Your task to perform on an android device: add a contact in the contacts app Image 0: 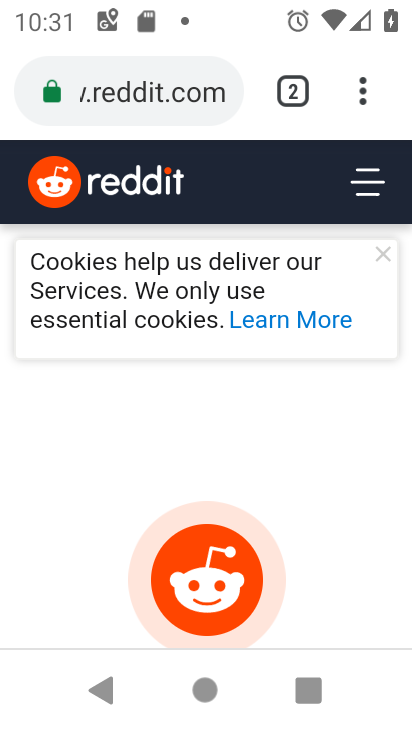
Step 0: press home button
Your task to perform on an android device: add a contact in the contacts app Image 1: 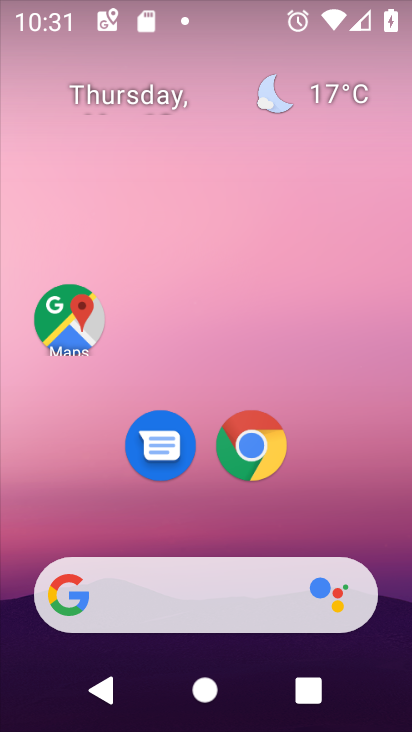
Step 1: drag from (200, 547) to (242, 192)
Your task to perform on an android device: add a contact in the contacts app Image 2: 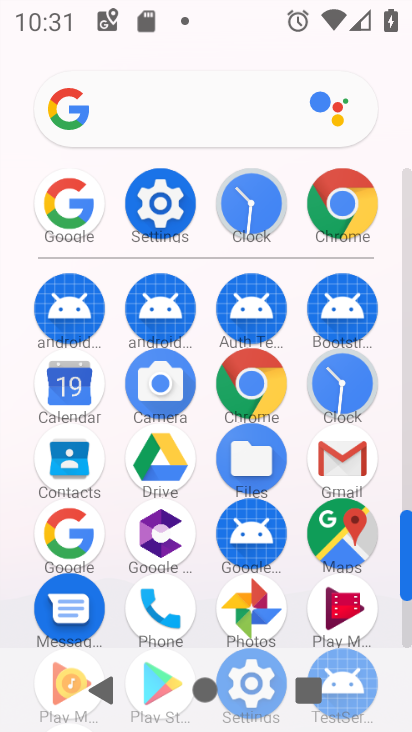
Step 2: click (61, 459)
Your task to perform on an android device: add a contact in the contacts app Image 3: 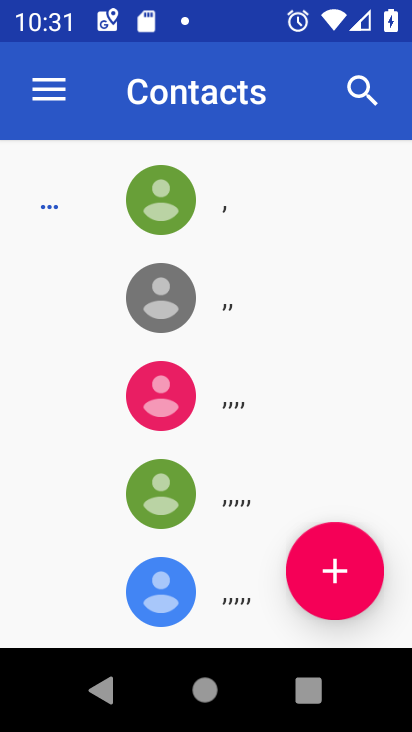
Step 3: click (347, 595)
Your task to perform on an android device: add a contact in the contacts app Image 4: 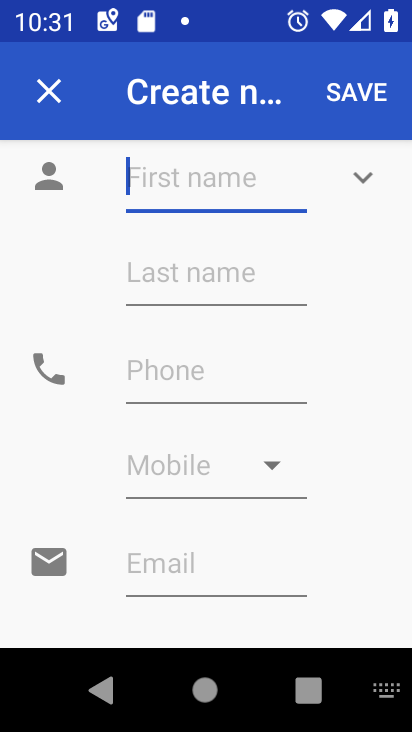
Step 4: type "ftdsgguhty"
Your task to perform on an android device: add a contact in the contacts app Image 5: 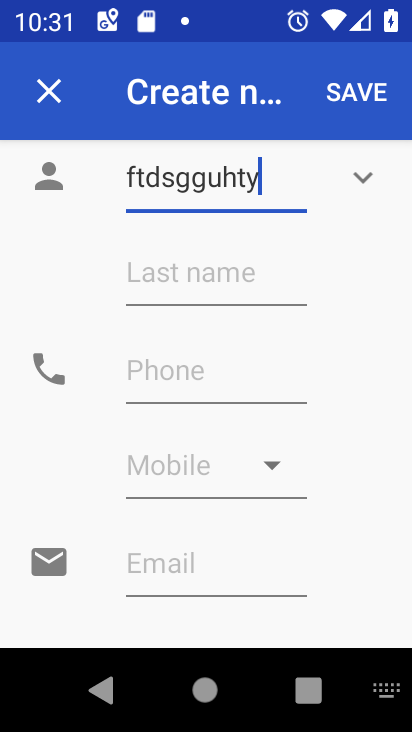
Step 5: type ""
Your task to perform on an android device: add a contact in the contacts app Image 6: 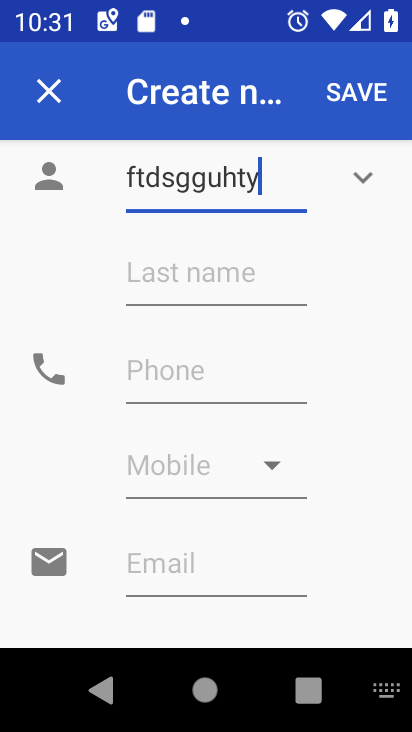
Step 6: click (173, 404)
Your task to perform on an android device: add a contact in the contacts app Image 7: 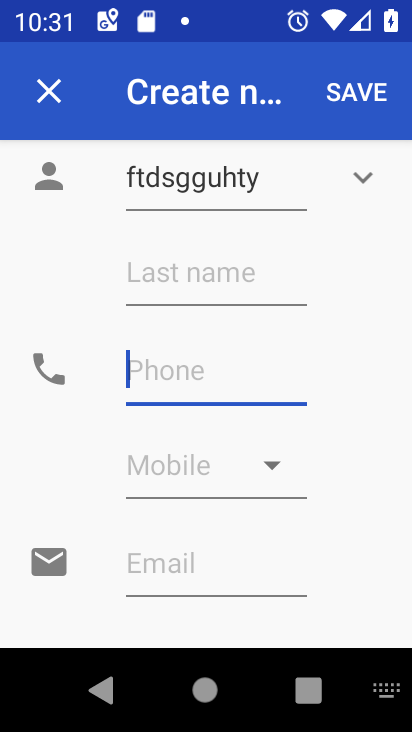
Step 7: click (180, 393)
Your task to perform on an android device: add a contact in the contacts app Image 8: 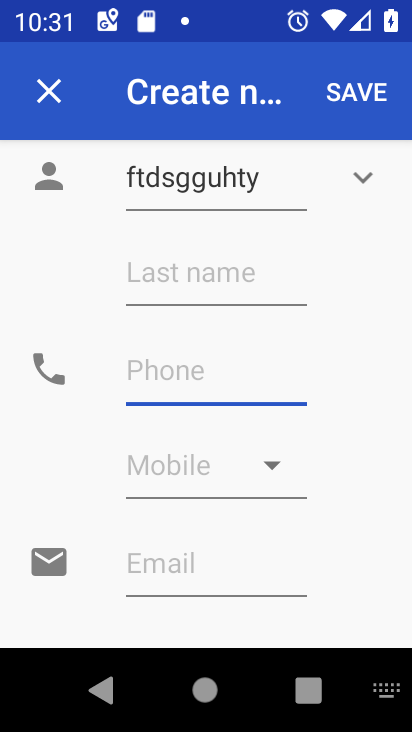
Step 8: type "45576456554"
Your task to perform on an android device: add a contact in the contacts app Image 9: 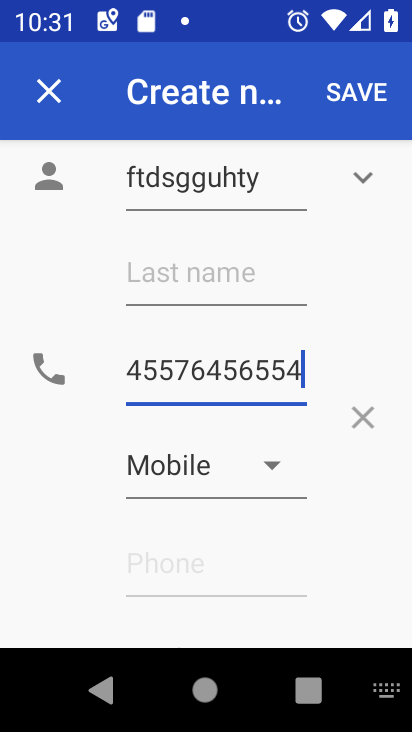
Step 9: type ""
Your task to perform on an android device: add a contact in the contacts app Image 10: 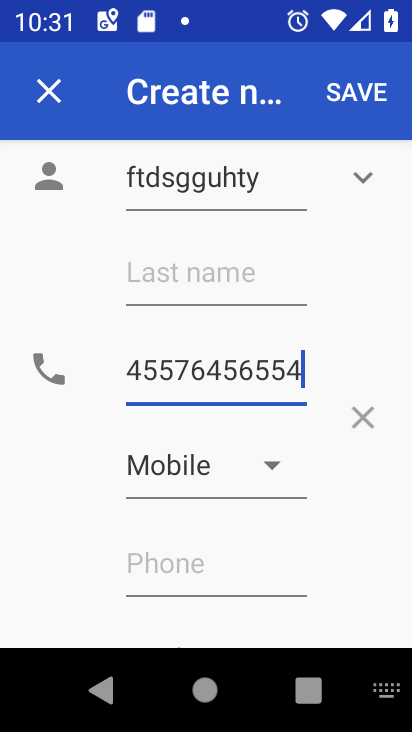
Step 10: click (372, 102)
Your task to perform on an android device: add a contact in the contacts app Image 11: 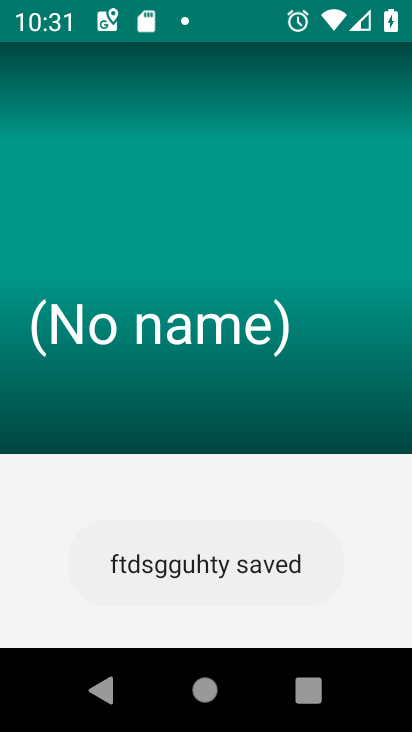
Step 11: task complete